Your task to perform on an android device: Open Google Maps Image 0: 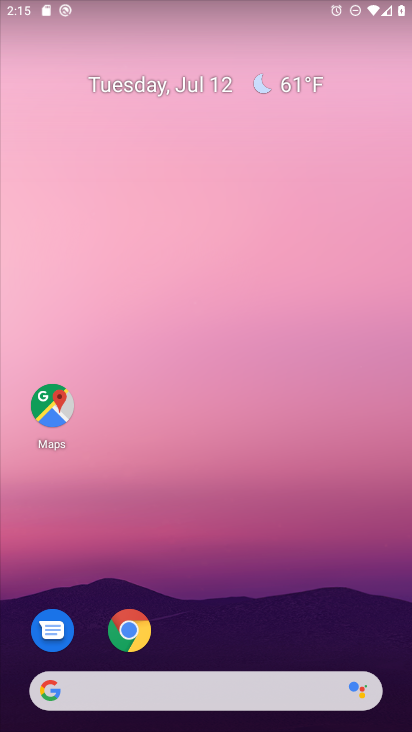
Step 0: click (62, 415)
Your task to perform on an android device: Open Google Maps Image 1: 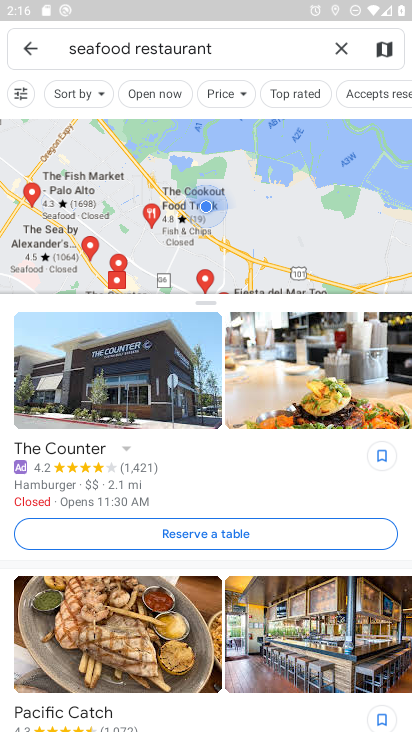
Step 1: task complete